Your task to perform on an android device: open device folders in google photos Image 0: 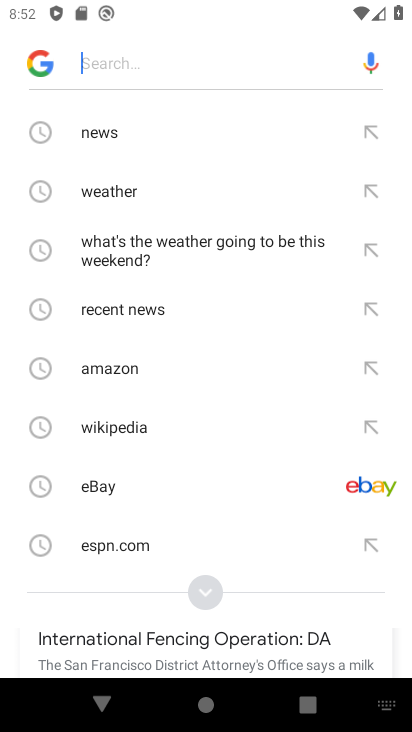
Step 0: press home button
Your task to perform on an android device: open device folders in google photos Image 1: 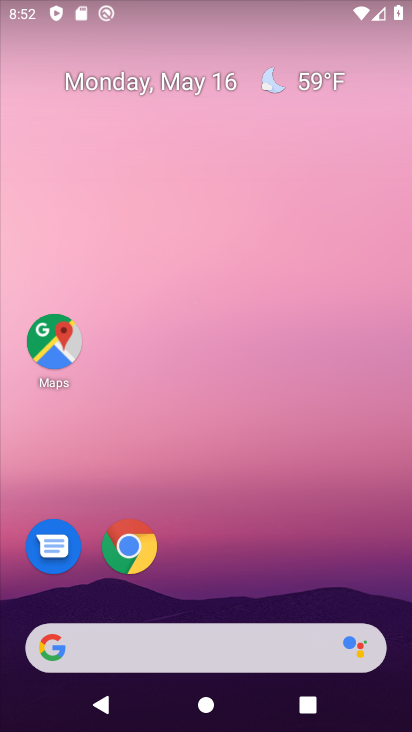
Step 1: drag from (166, 580) to (221, 151)
Your task to perform on an android device: open device folders in google photos Image 2: 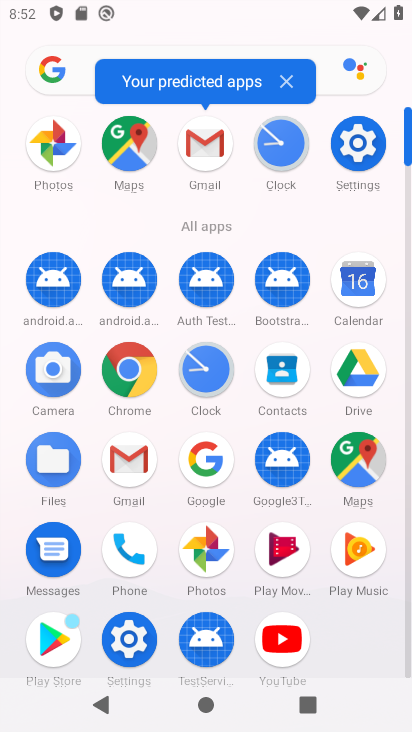
Step 2: click (54, 132)
Your task to perform on an android device: open device folders in google photos Image 3: 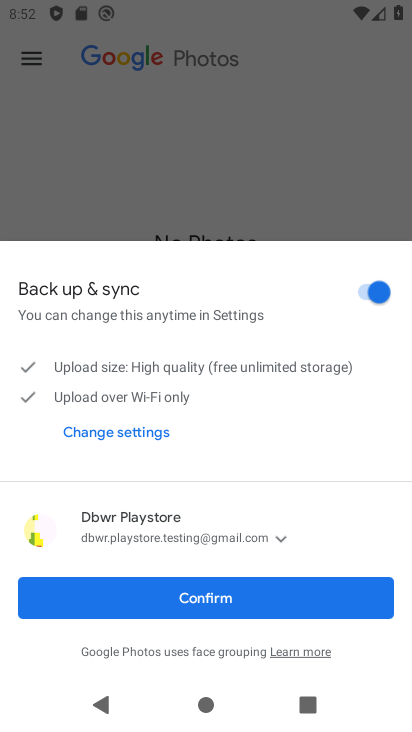
Step 3: click (186, 592)
Your task to perform on an android device: open device folders in google photos Image 4: 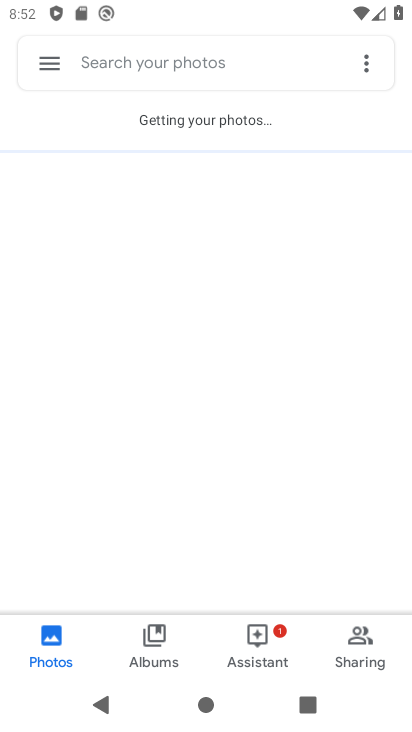
Step 4: click (59, 79)
Your task to perform on an android device: open device folders in google photos Image 5: 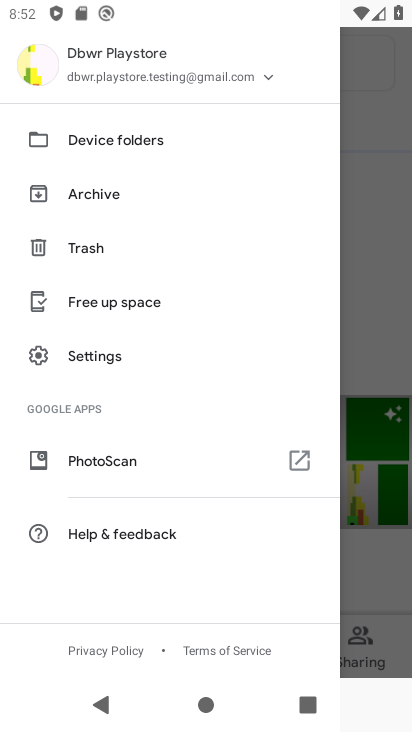
Step 5: click (69, 128)
Your task to perform on an android device: open device folders in google photos Image 6: 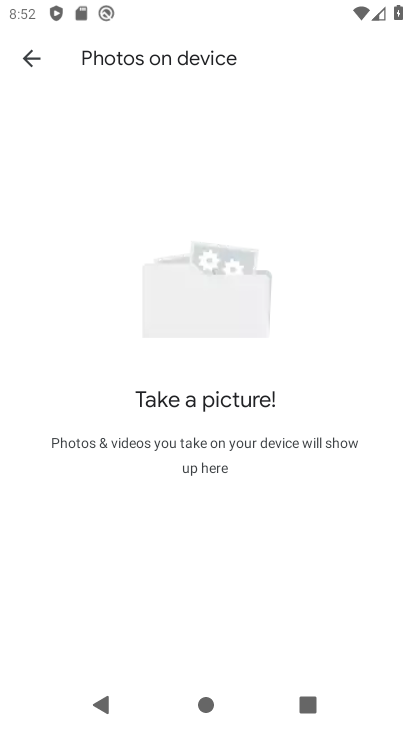
Step 6: task complete